Your task to perform on an android device: install app "Chime – Mobile Banking" Image 0: 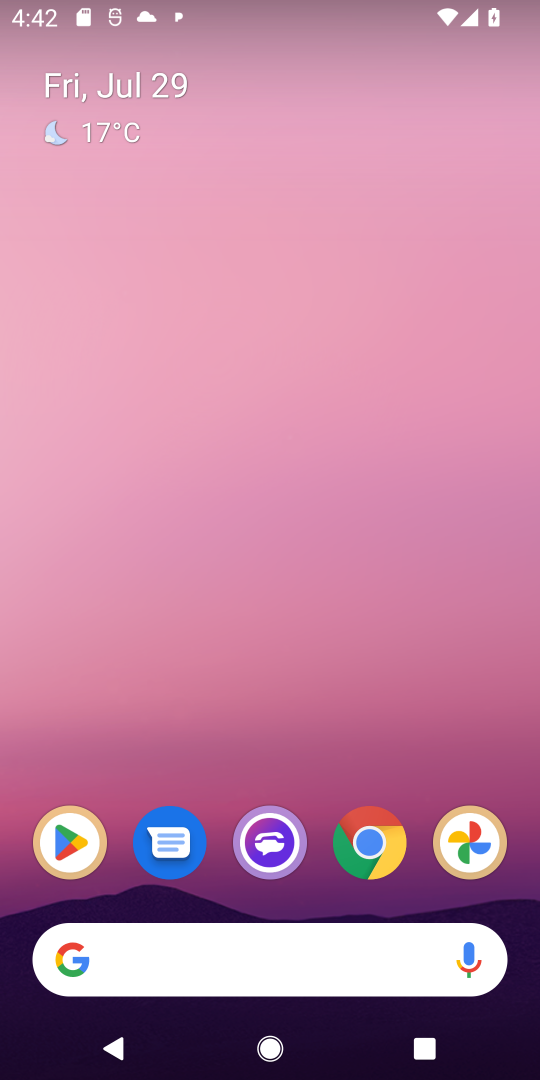
Step 0: click (80, 831)
Your task to perform on an android device: install app "Chime – Mobile Banking" Image 1: 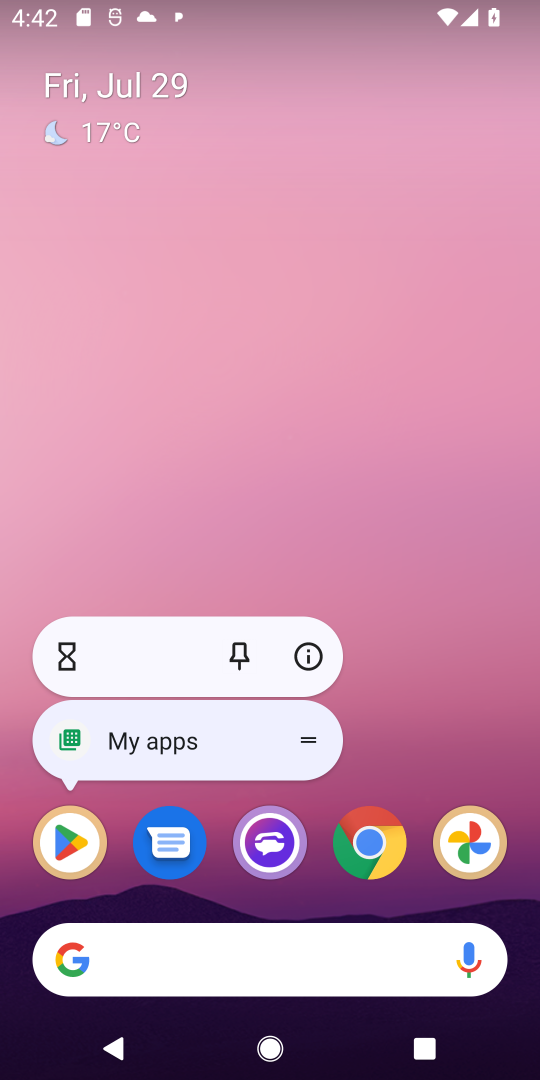
Step 1: click (73, 843)
Your task to perform on an android device: install app "Chime – Mobile Banking" Image 2: 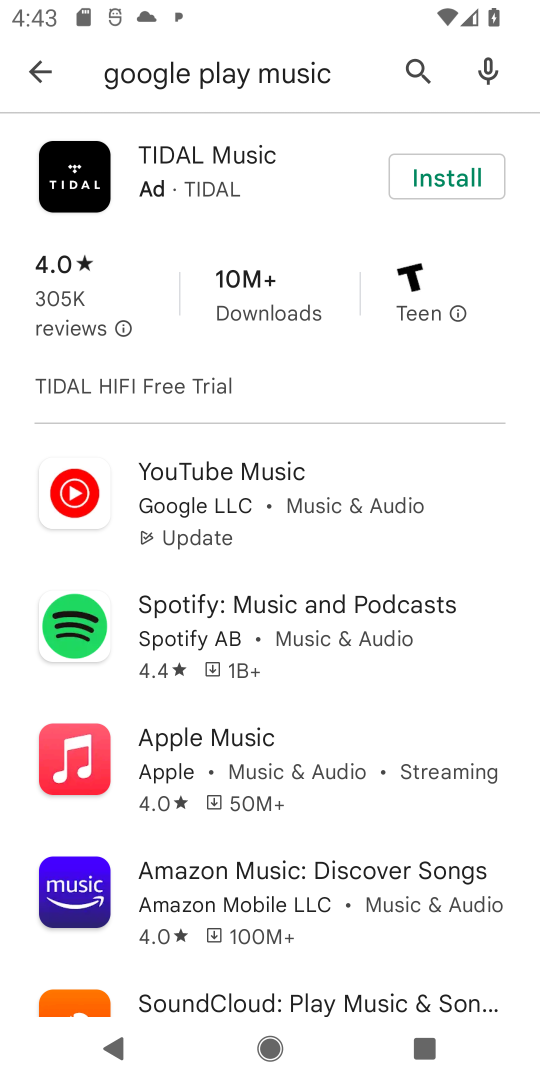
Step 2: click (413, 78)
Your task to perform on an android device: install app "Chime – Mobile Banking" Image 3: 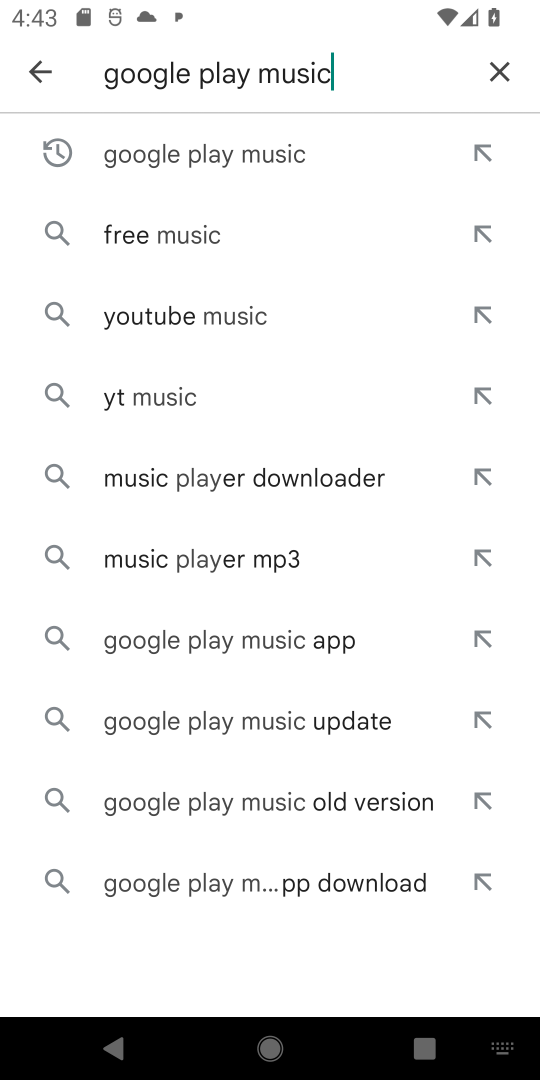
Step 3: click (499, 52)
Your task to perform on an android device: install app "Chime – Mobile Banking" Image 4: 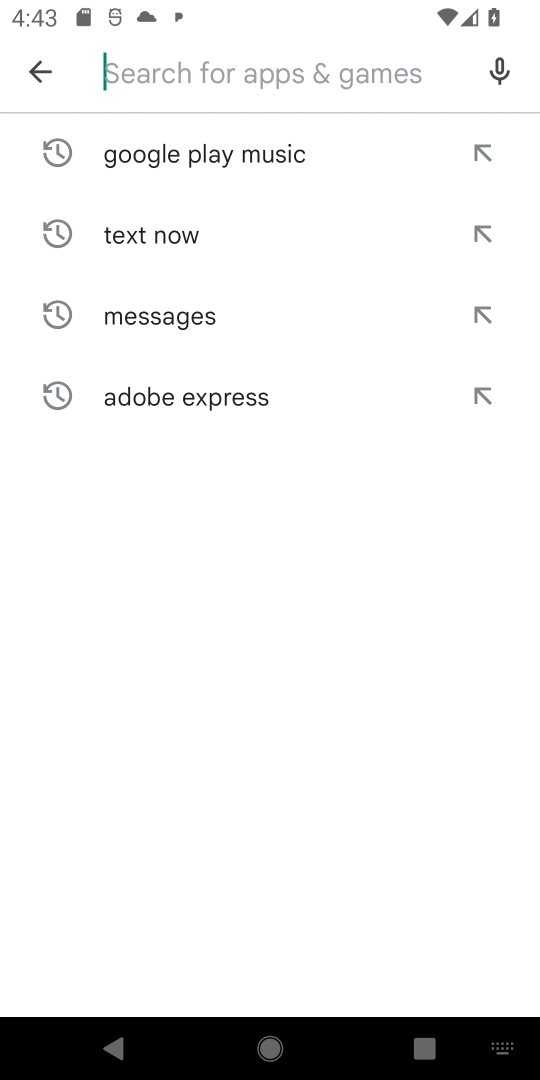
Step 4: click (184, 81)
Your task to perform on an android device: install app "Chime – Mobile Banking" Image 5: 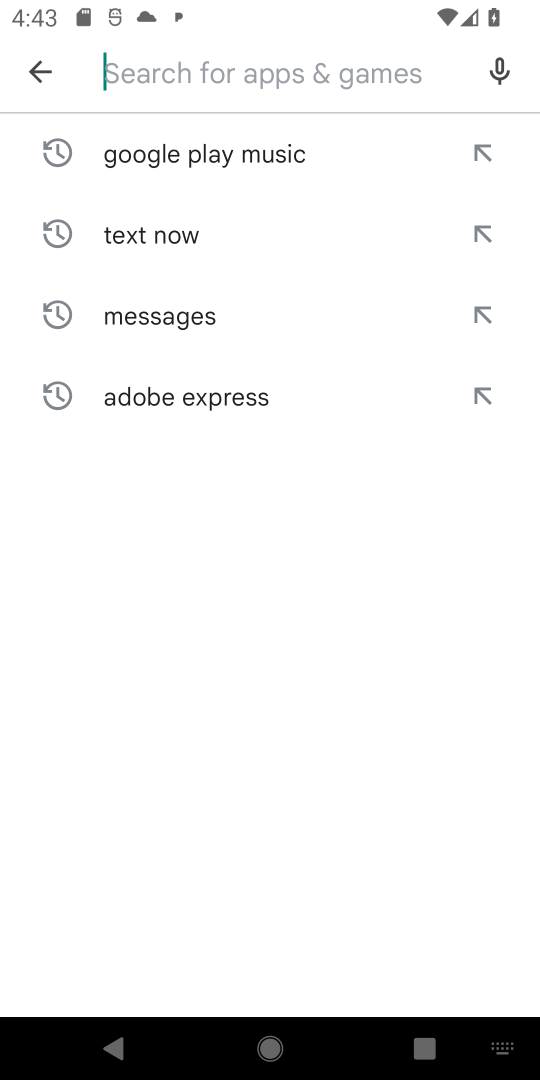
Step 5: click (219, 87)
Your task to perform on an android device: install app "Chime – Mobile Banking" Image 6: 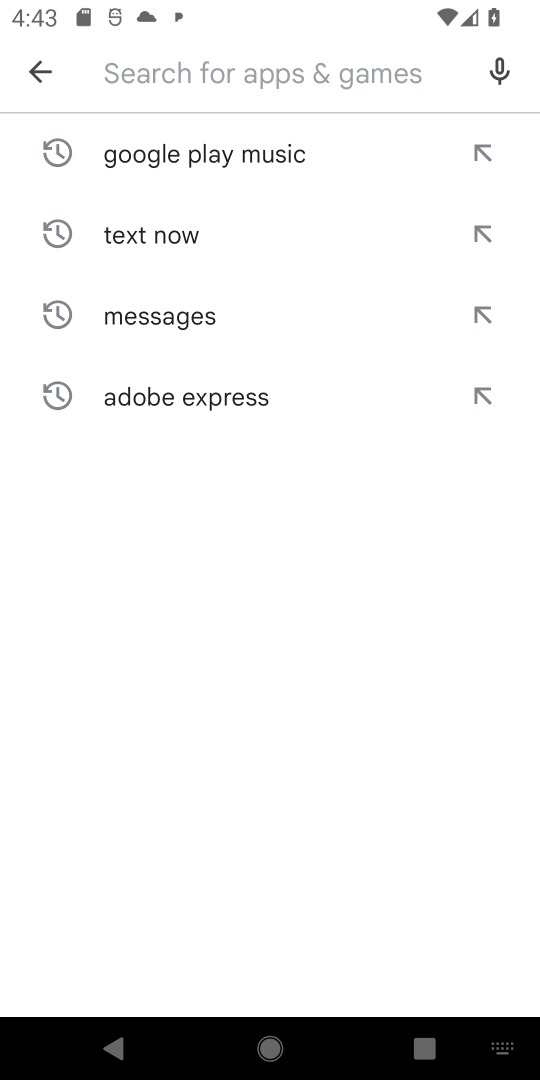
Step 6: type "chime"
Your task to perform on an android device: install app "Chime – Mobile Banking" Image 7: 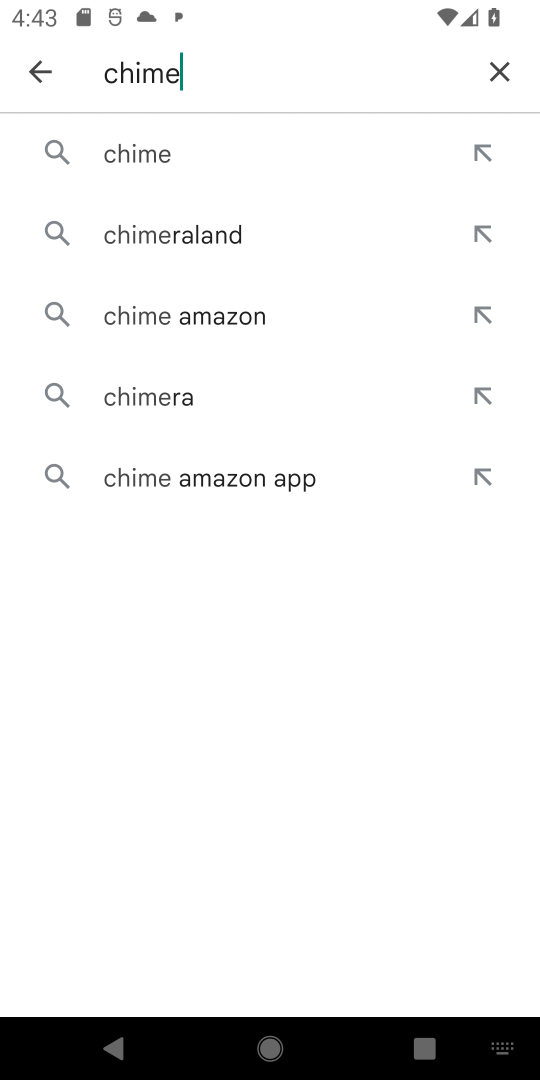
Step 7: click (141, 136)
Your task to perform on an android device: install app "Chime – Mobile Banking" Image 8: 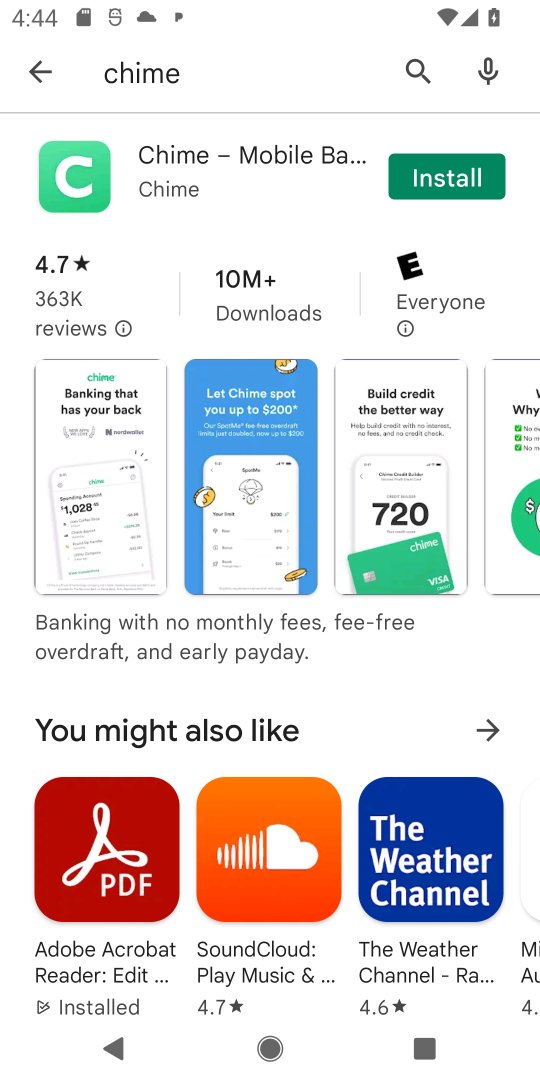
Step 8: click (464, 181)
Your task to perform on an android device: install app "Chime – Mobile Banking" Image 9: 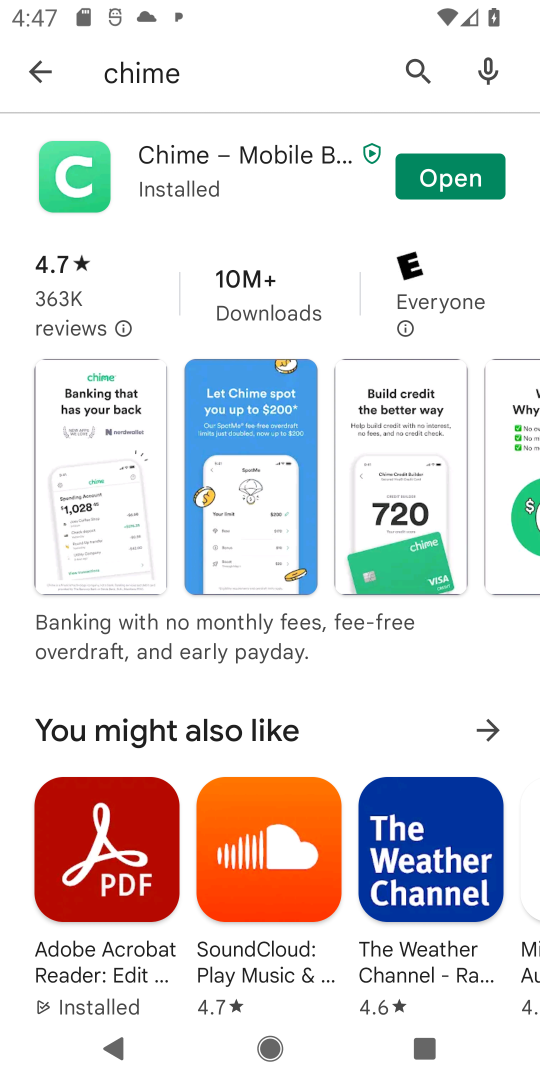
Step 9: click (454, 179)
Your task to perform on an android device: install app "Chime – Mobile Banking" Image 10: 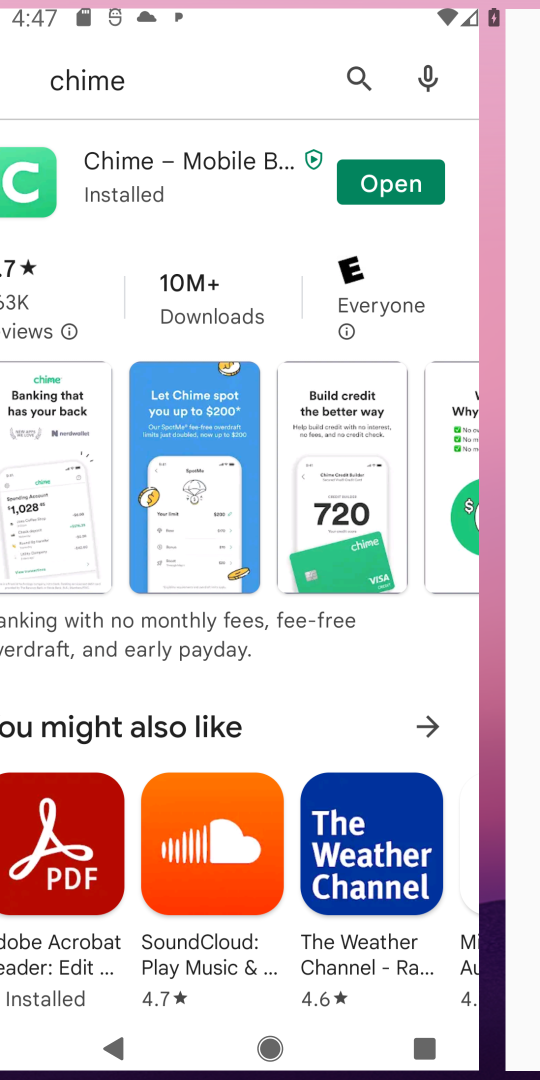
Step 10: task complete